Your task to perform on an android device: turn vacation reply on in the gmail app Image 0: 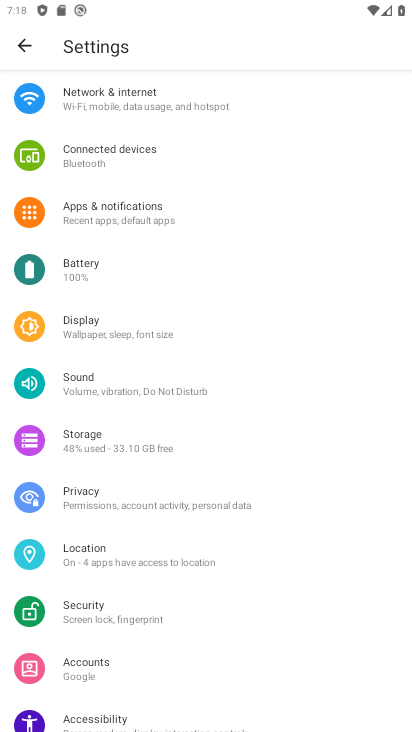
Step 0: press back button
Your task to perform on an android device: turn vacation reply on in the gmail app Image 1: 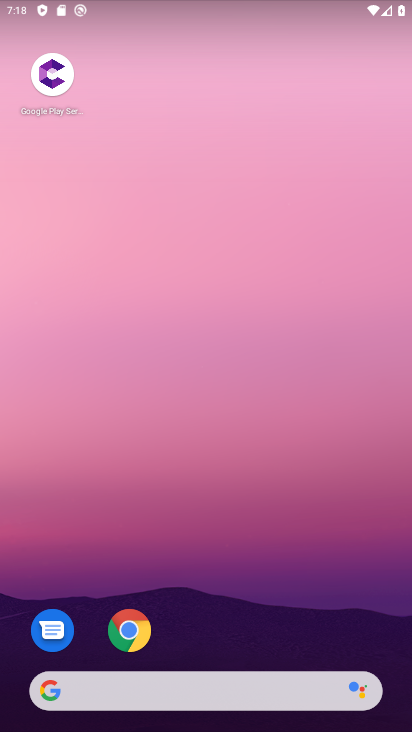
Step 1: drag from (258, 630) to (204, 141)
Your task to perform on an android device: turn vacation reply on in the gmail app Image 2: 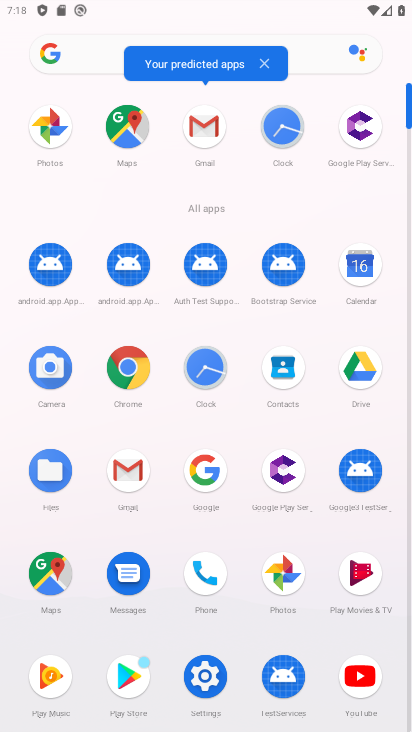
Step 2: click (205, 125)
Your task to perform on an android device: turn vacation reply on in the gmail app Image 3: 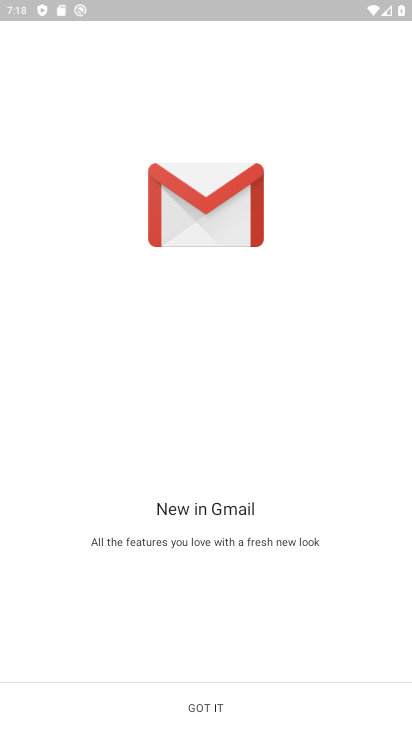
Step 3: click (206, 704)
Your task to perform on an android device: turn vacation reply on in the gmail app Image 4: 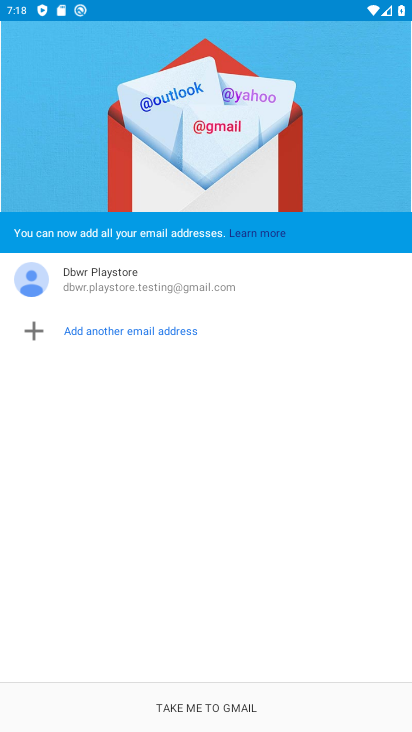
Step 4: click (206, 703)
Your task to perform on an android device: turn vacation reply on in the gmail app Image 5: 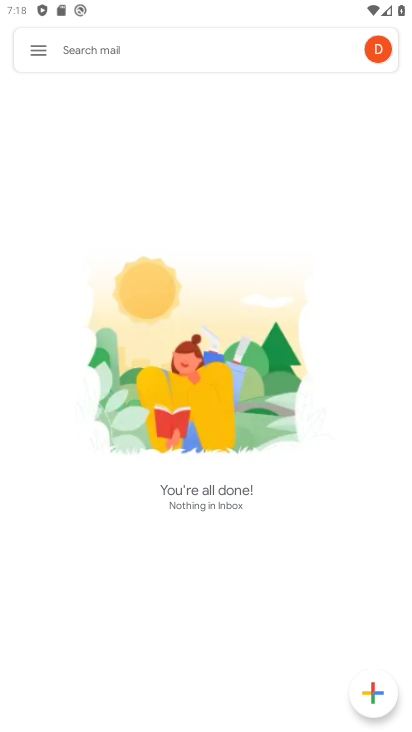
Step 5: click (41, 52)
Your task to perform on an android device: turn vacation reply on in the gmail app Image 6: 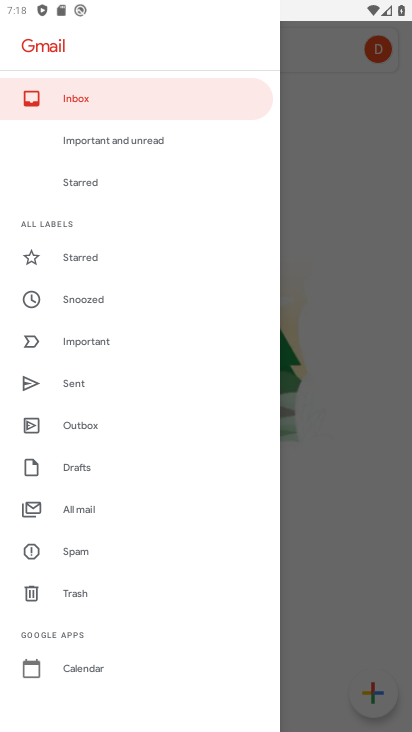
Step 6: drag from (87, 577) to (115, 488)
Your task to perform on an android device: turn vacation reply on in the gmail app Image 7: 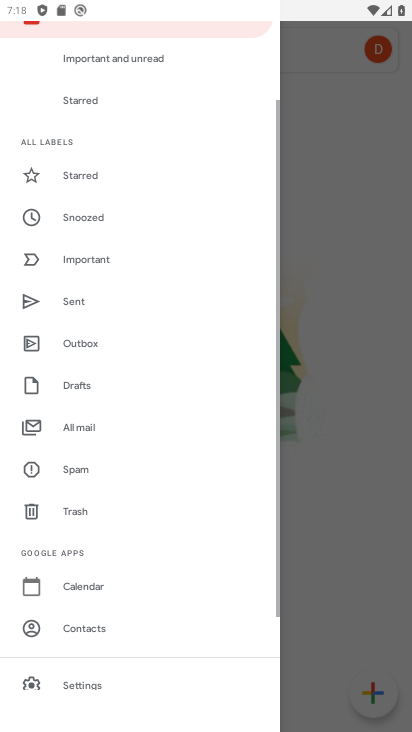
Step 7: drag from (89, 601) to (125, 462)
Your task to perform on an android device: turn vacation reply on in the gmail app Image 8: 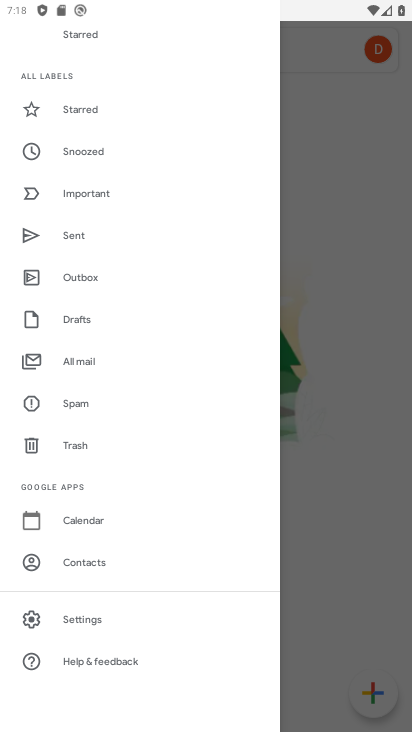
Step 8: click (84, 624)
Your task to perform on an android device: turn vacation reply on in the gmail app Image 9: 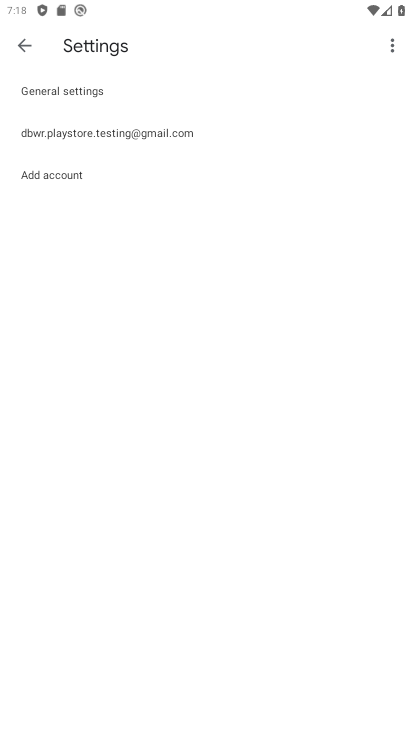
Step 9: click (119, 136)
Your task to perform on an android device: turn vacation reply on in the gmail app Image 10: 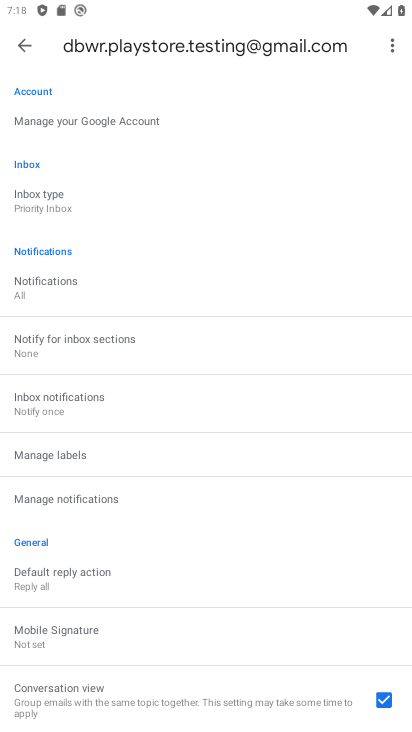
Step 10: drag from (119, 533) to (151, 443)
Your task to perform on an android device: turn vacation reply on in the gmail app Image 11: 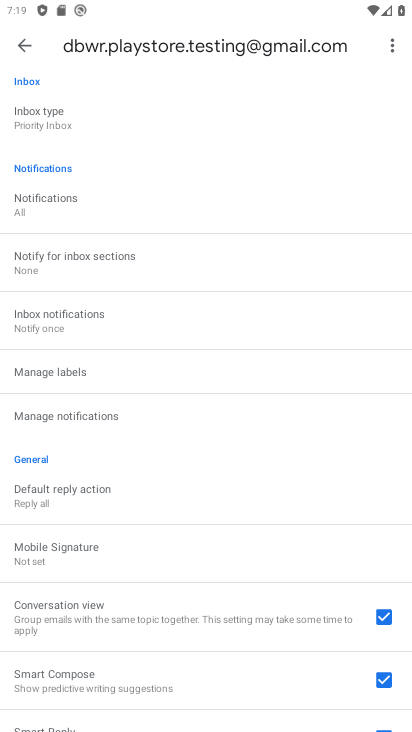
Step 11: drag from (98, 489) to (122, 409)
Your task to perform on an android device: turn vacation reply on in the gmail app Image 12: 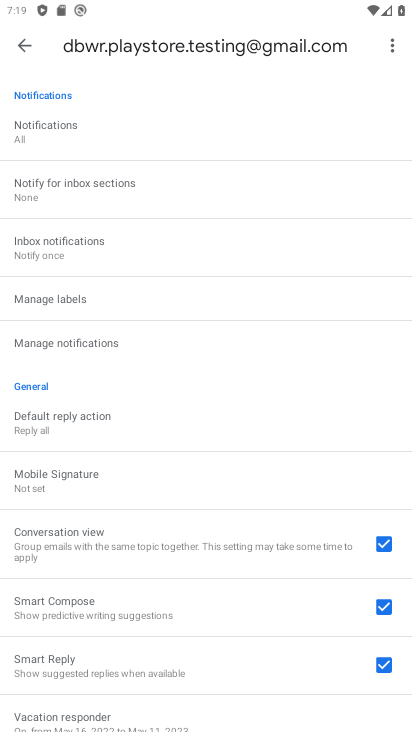
Step 12: drag from (108, 528) to (176, 419)
Your task to perform on an android device: turn vacation reply on in the gmail app Image 13: 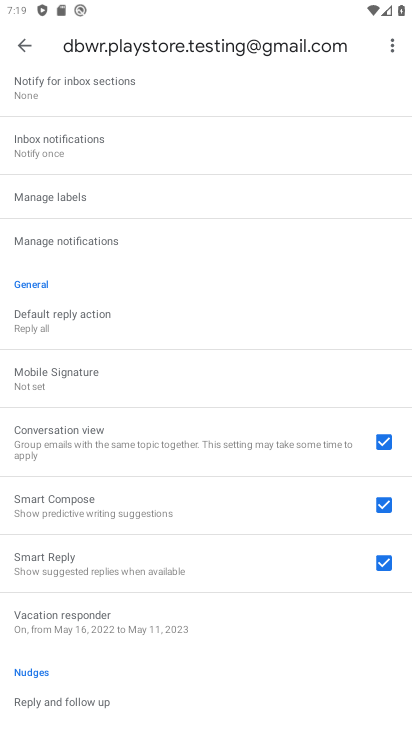
Step 13: click (108, 616)
Your task to perform on an android device: turn vacation reply on in the gmail app Image 14: 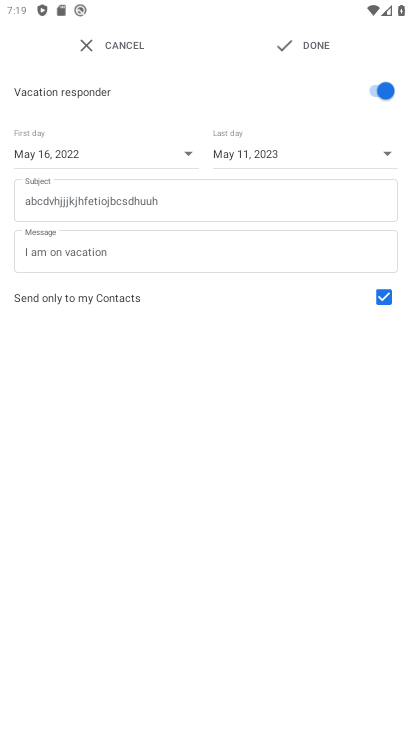
Step 14: task complete